Your task to perform on an android device: move an email to a new category in the gmail app Image 0: 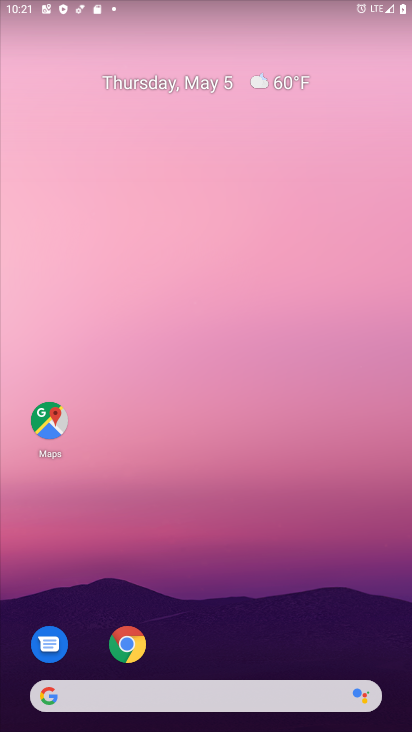
Step 0: drag from (223, 382) to (223, 146)
Your task to perform on an android device: move an email to a new category in the gmail app Image 1: 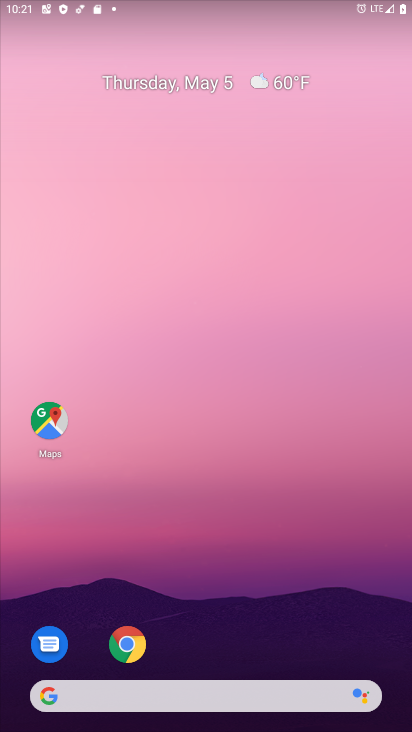
Step 1: drag from (324, 613) to (285, 224)
Your task to perform on an android device: move an email to a new category in the gmail app Image 2: 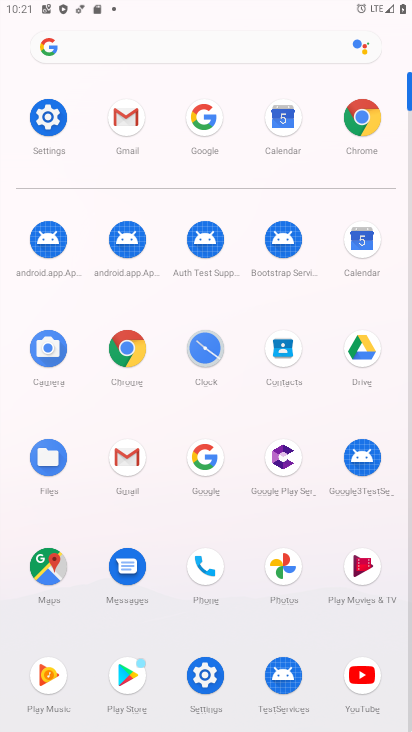
Step 2: click (128, 125)
Your task to perform on an android device: move an email to a new category in the gmail app Image 3: 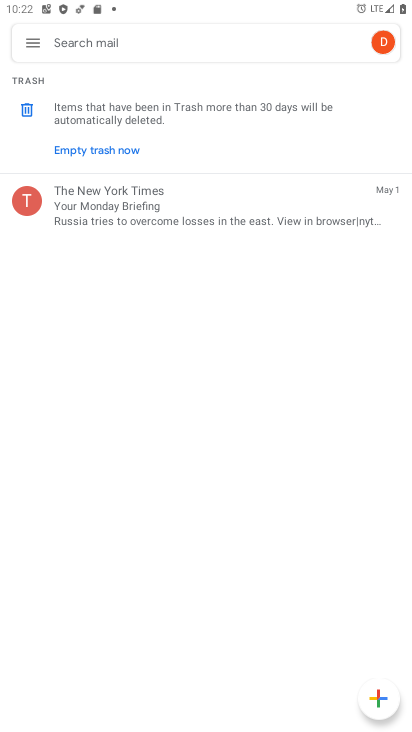
Step 3: click (36, 42)
Your task to perform on an android device: move an email to a new category in the gmail app Image 4: 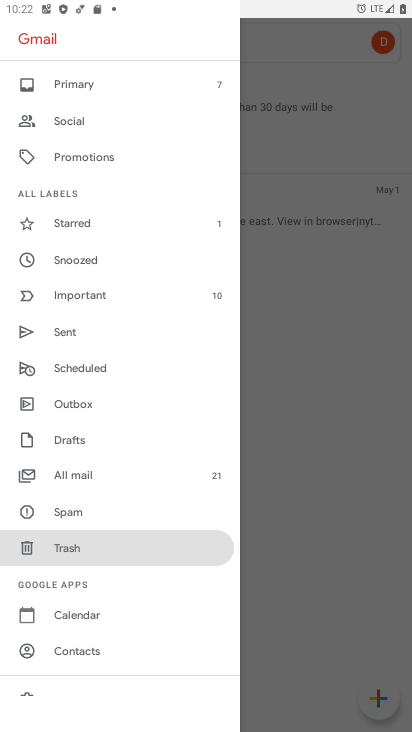
Step 4: click (89, 92)
Your task to perform on an android device: move an email to a new category in the gmail app Image 5: 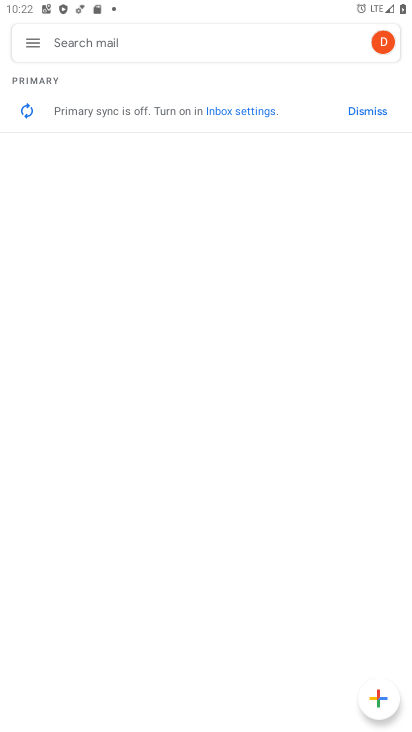
Step 5: click (34, 42)
Your task to perform on an android device: move an email to a new category in the gmail app Image 6: 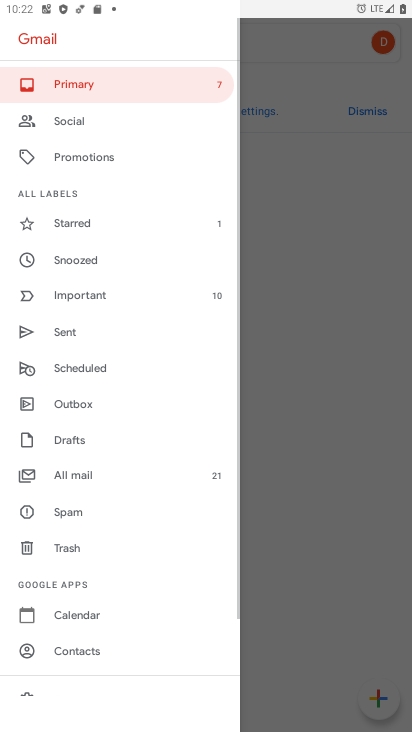
Step 6: click (95, 223)
Your task to perform on an android device: move an email to a new category in the gmail app Image 7: 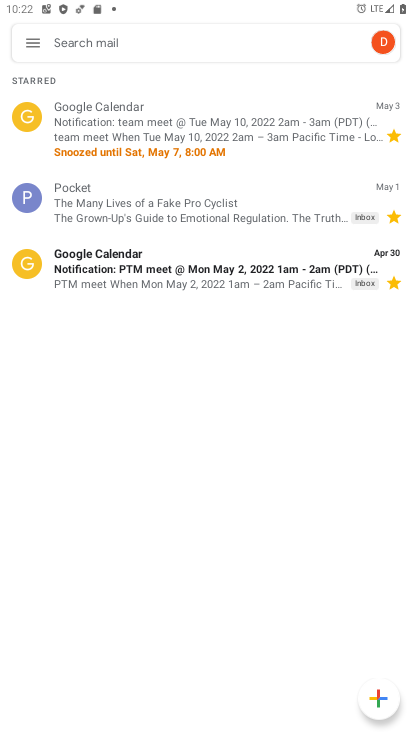
Step 7: click (26, 109)
Your task to perform on an android device: move an email to a new category in the gmail app Image 8: 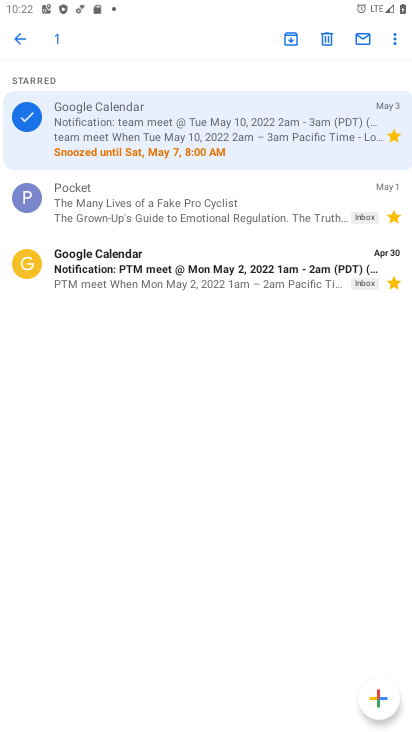
Step 8: click (396, 34)
Your task to perform on an android device: move an email to a new category in the gmail app Image 9: 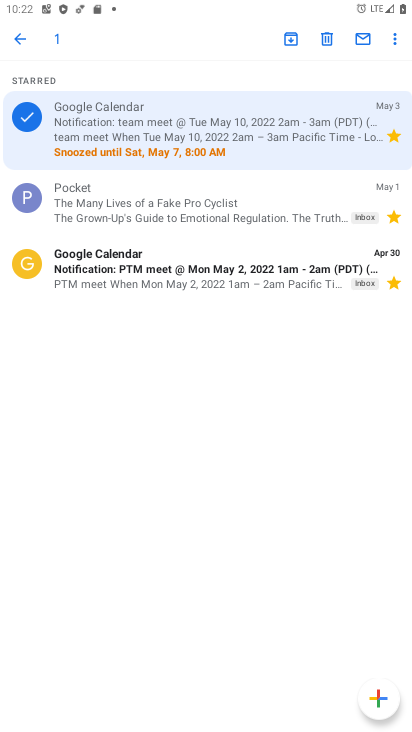
Step 9: click (393, 45)
Your task to perform on an android device: move an email to a new category in the gmail app Image 10: 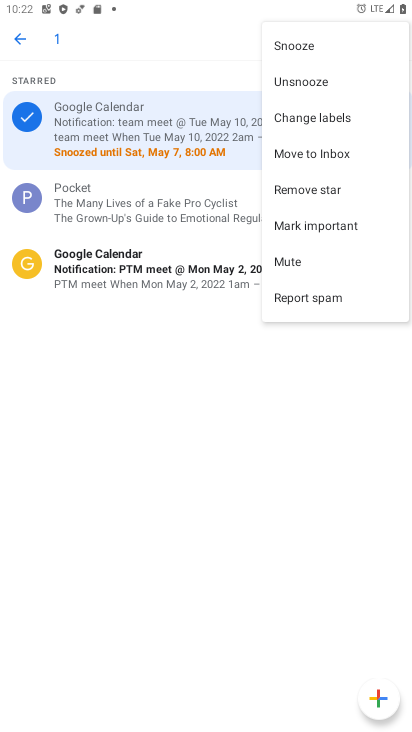
Step 10: click (327, 151)
Your task to perform on an android device: move an email to a new category in the gmail app Image 11: 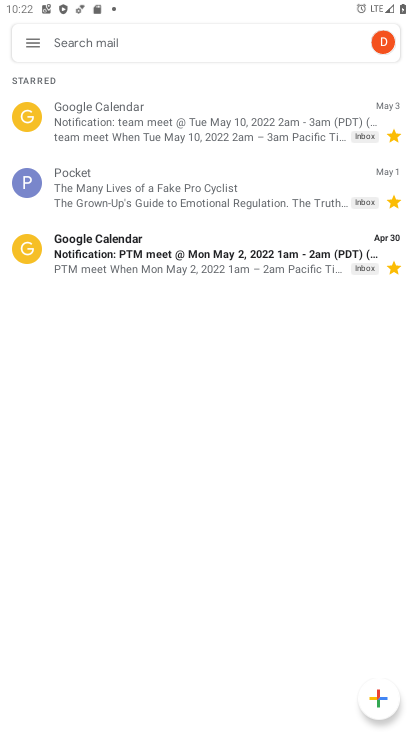
Step 11: task complete